Your task to perform on an android device: change text size in settings app Image 0: 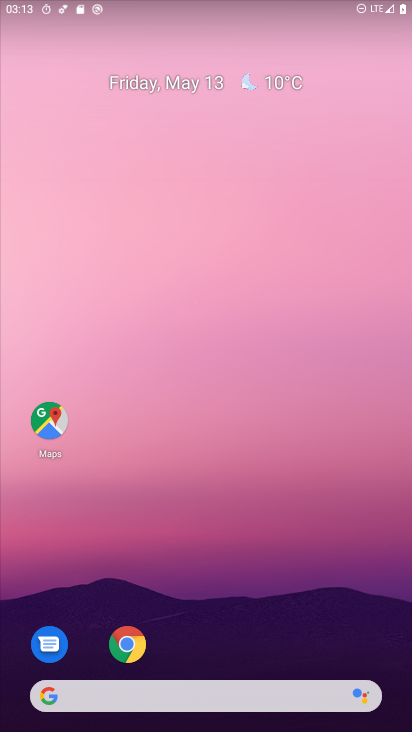
Step 0: drag from (0, 0) to (376, 366)
Your task to perform on an android device: change text size in settings app Image 1: 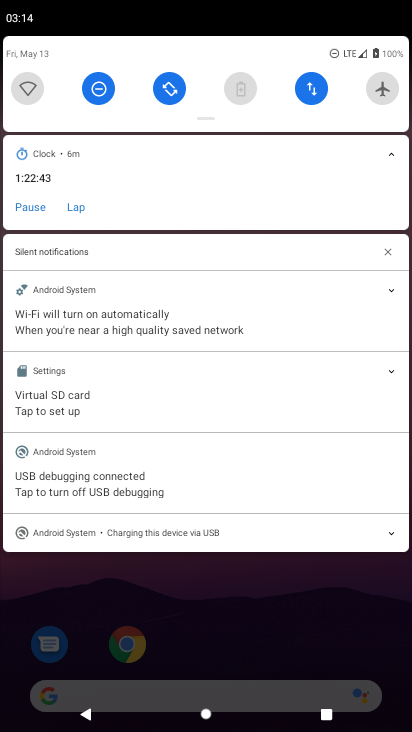
Step 1: drag from (319, 573) to (311, 103)
Your task to perform on an android device: change text size in settings app Image 2: 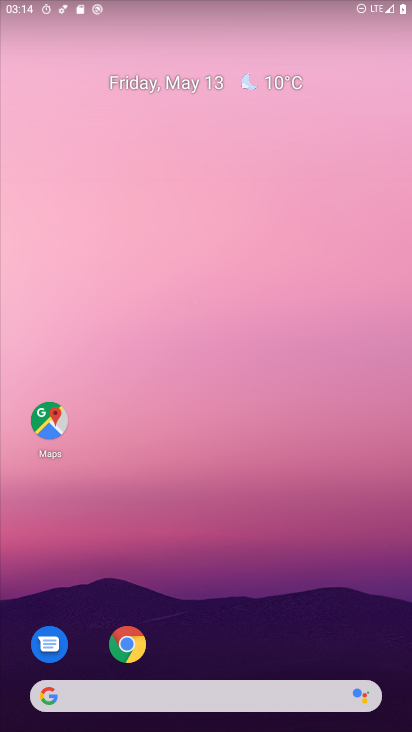
Step 2: drag from (271, 718) to (317, 116)
Your task to perform on an android device: change text size in settings app Image 3: 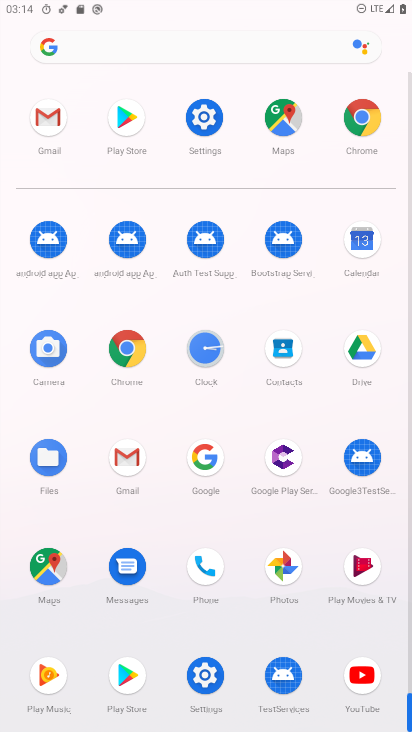
Step 3: click (220, 173)
Your task to perform on an android device: change text size in settings app Image 4: 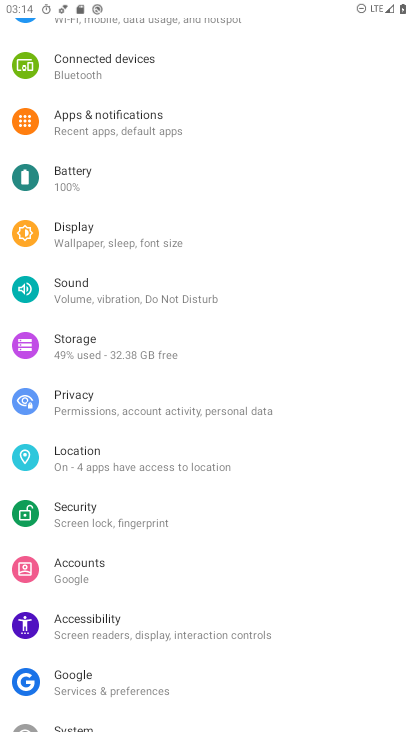
Step 4: task complete